Your task to perform on an android device: Open display settings Image 0: 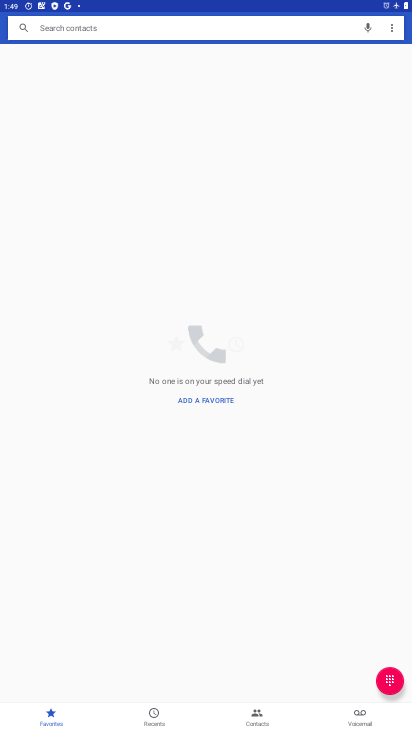
Step 0: press home button
Your task to perform on an android device: Open display settings Image 1: 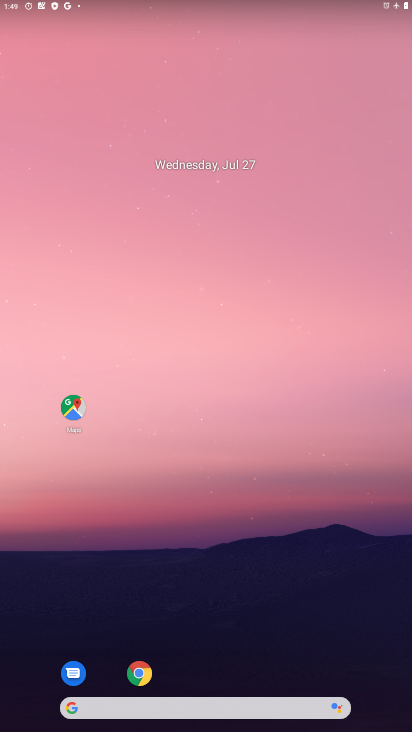
Step 1: drag from (230, 680) to (283, 16)
Your task to perform on an android device: Open display settings Image 2: 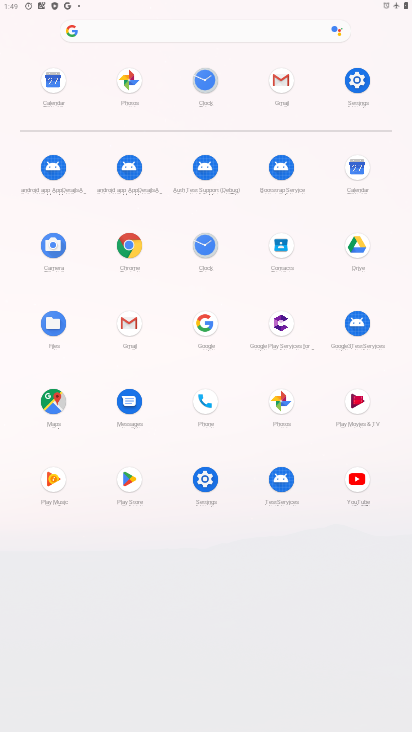
Step 2: click (356, 89)
Your task to perform on an android device: Open display settings Image 3: 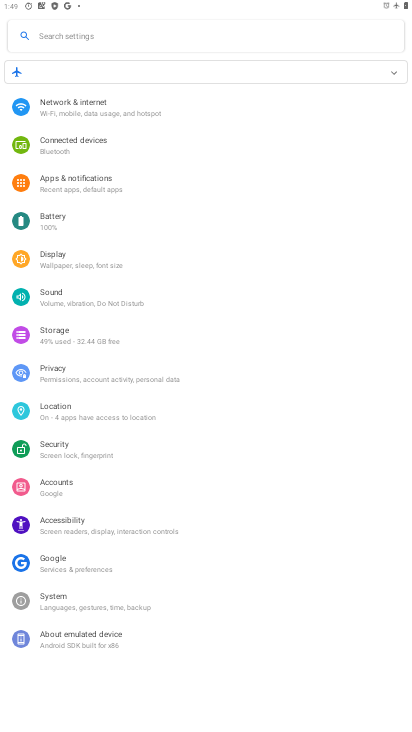
Step 3: click (37, 264)
Your task to perform on an android device: Open display settings Image 4: 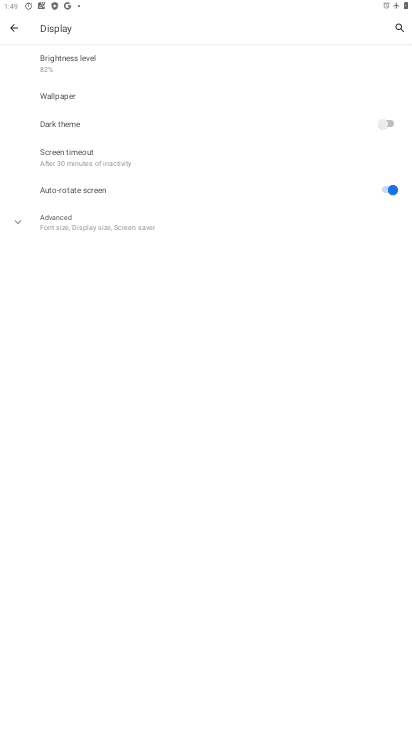
Step 4: task complete